Your task to perform on an android device: Open the calendar and show me this week's events? Image 0: 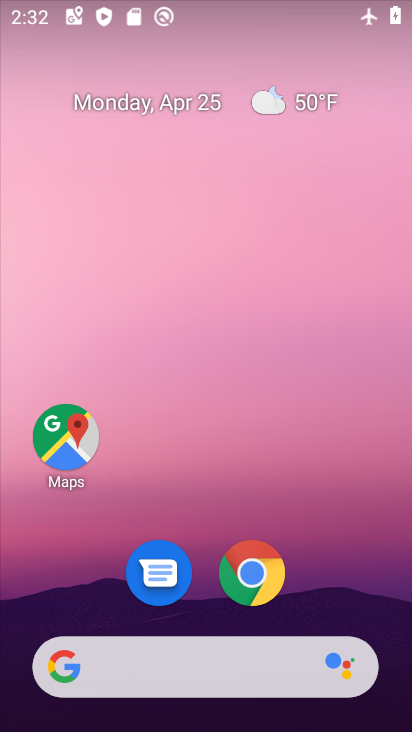
Step 0: drag from (342, 559) to (347, 121)
Your task to perform on an android device: Open the calendar and show me this week's events? Image 1: 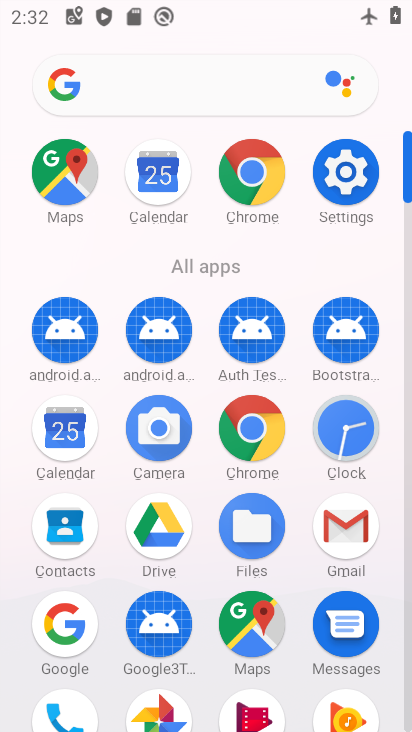
Step 1: click (60, 433)
Your task to perform on an android device: Open the calendar and show me this week's events? Image 2: 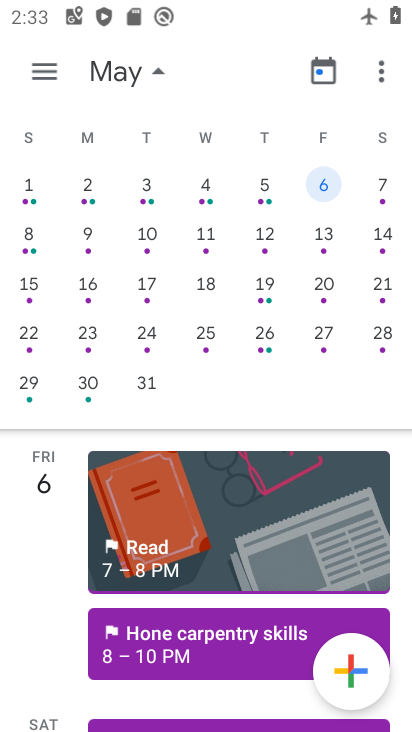
Step 2: click (326, 196)
Your task to perform on an android device: Open the calendar and show me this week's events? Image 3: 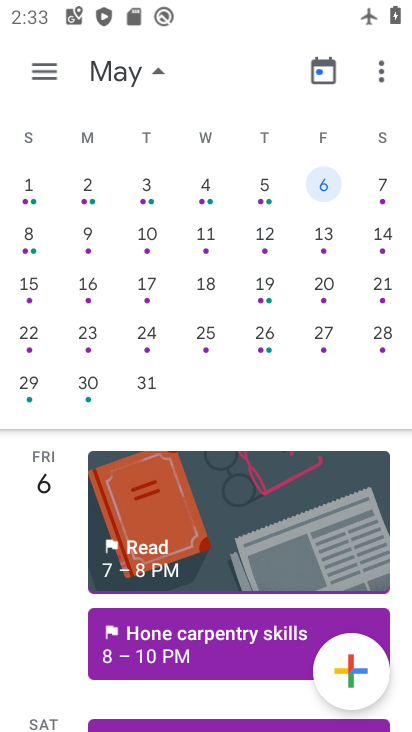
Step 3: task complete